Your task to perform on an android device: make emails show in primary in the gmail app Image 0: 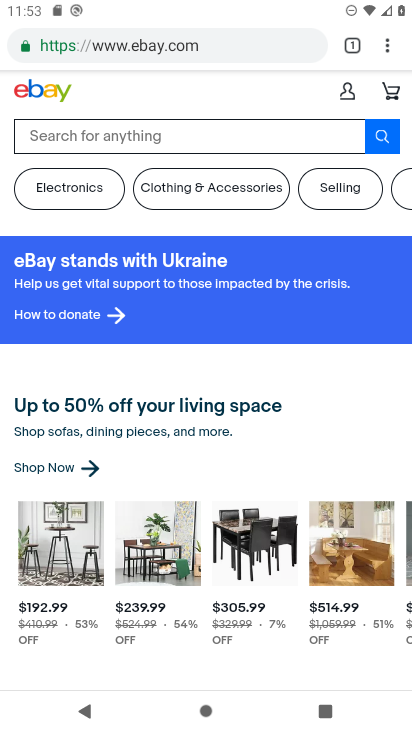
Step 0: press home button
Your task to perform on an android device: make emails show in primary in the gmail app Image 1: 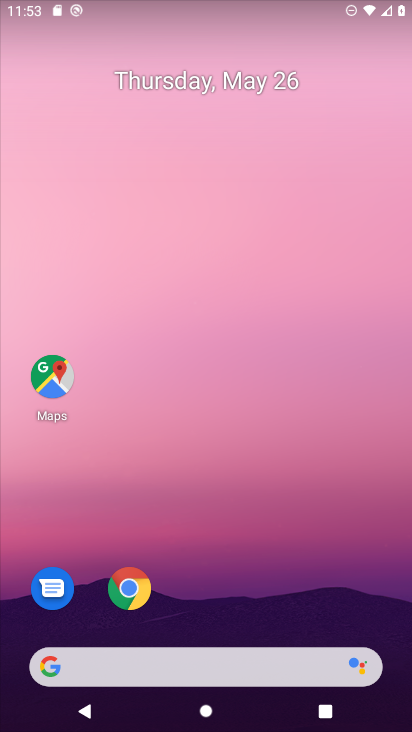
Step 1: drag from (392, 617) to (346, 70)
Your task to perform on an android device: make emails show in primary in the gmail app Image 2: 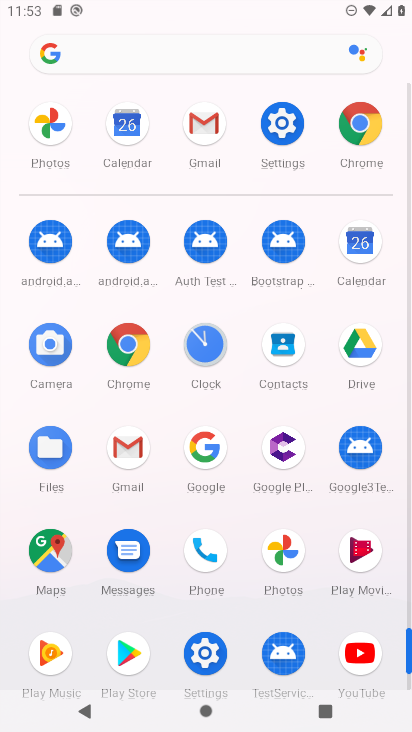
Step 2: click (127, 447)
Your task to perform on an android device: make emails show in primary in the gmail app Image 3: 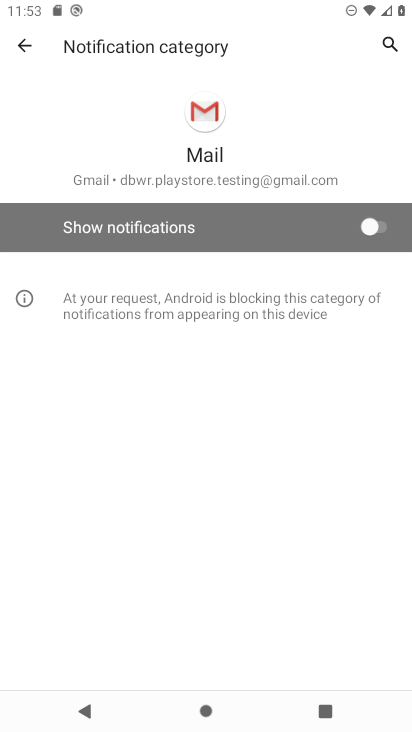
Step 3: press back button
Your task to perform on an android device: make emails show in primary in the gmail app Image 4: 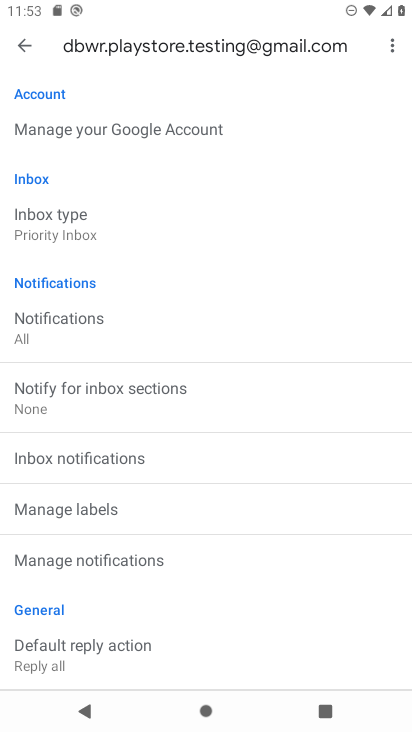
Step 4: click (60, 221)
Your task to perform on an android device: make emails show in primary in the gmail app Image 5: 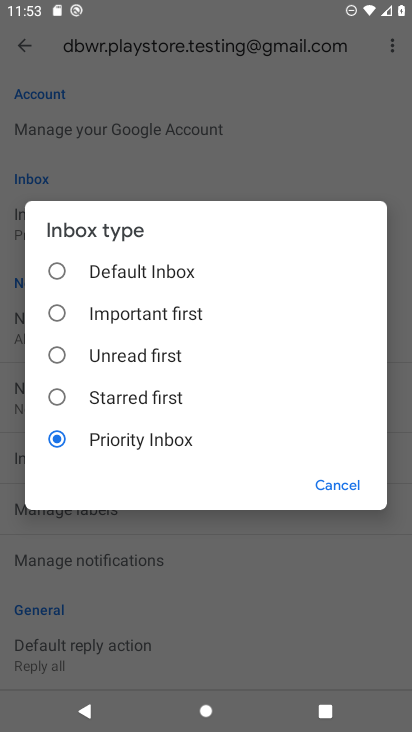
Step 5: click (59, 267)
Your task to perform on an android device: make emails show in primary in the gmail app Image 6: 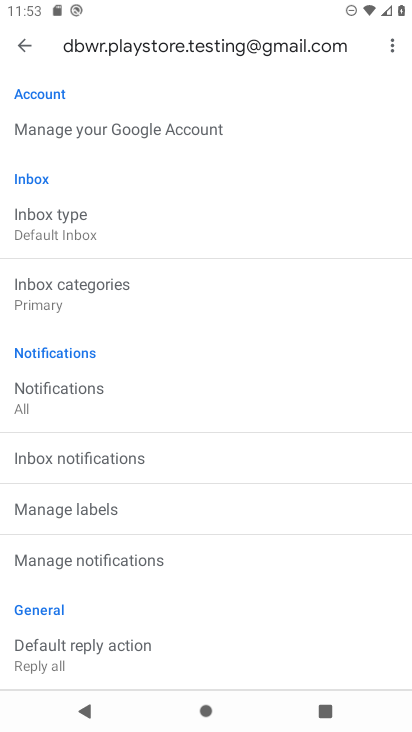
Step 6: click (60, 283)
Your task to perform on an android device: make emails show in primary in the gmail app Image 7: 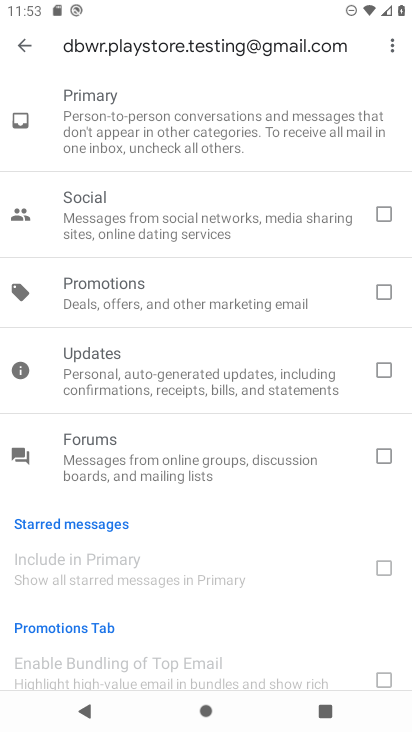
Step 7: task complete